Your task to perform on an android device: visit the assistant section in the google photos Image 0: 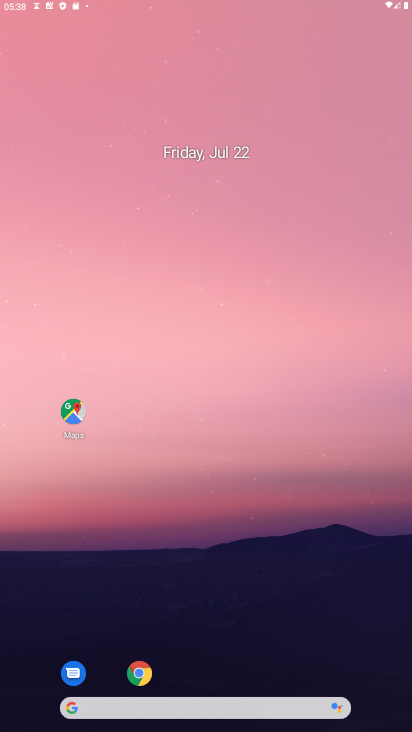
Step 0: press home button
Your task to perform on an android device: visit the assistant section in the google photos Image 1: 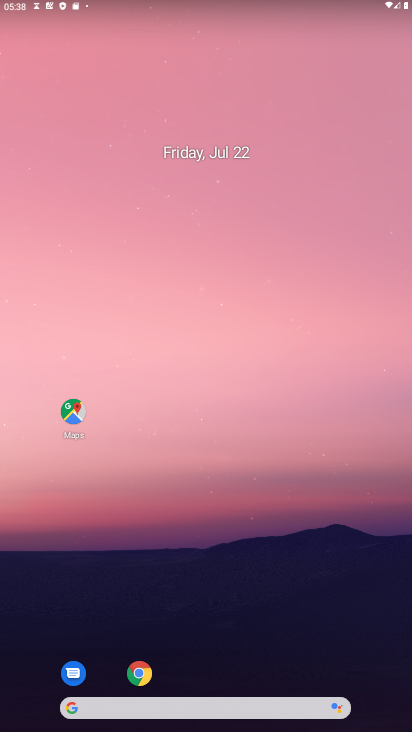
Step 1: drag from (233, 599) to (339, 152)
Your task to perform on an android device: visit the assistant section in the google photos Image 2: 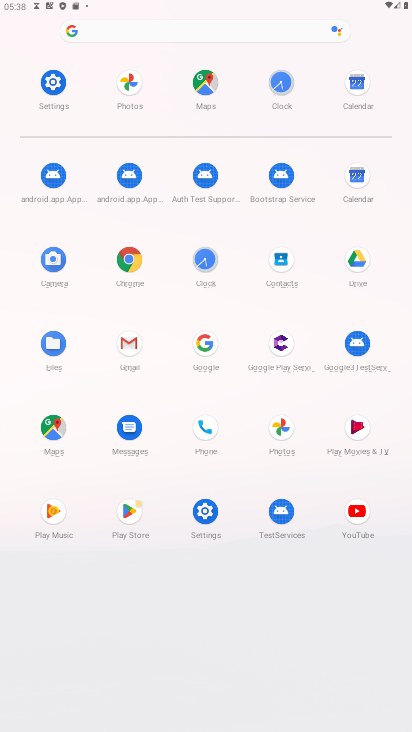
Step 2: click (291, 425)
Your task to perform on an android device: visit the assistant section in the google photos Image 3: 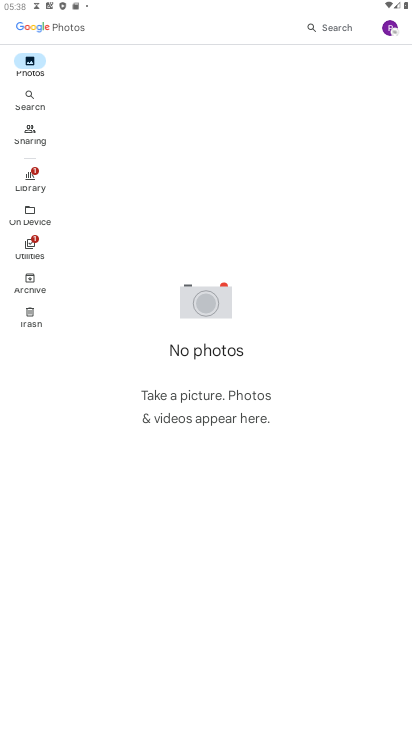
Step 3: click (388, 34)
Your task to perform on an android device: visit the assistant section in the google photos Image 4: 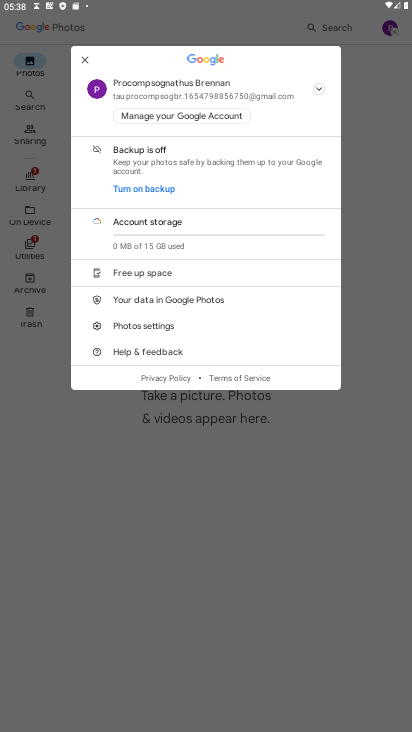
Step 4: task complete